Your task to perform on an android device: turn on translation in the chrome app Image 0: 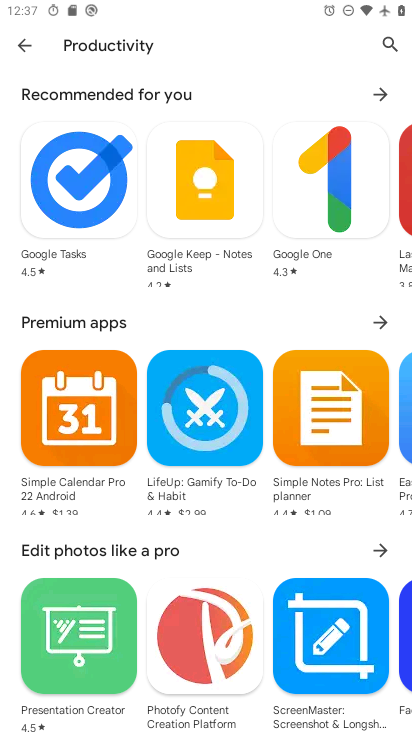
Step 0: press home button
Your task to perform on an android device: turn on translation in the chrome app Image 1: 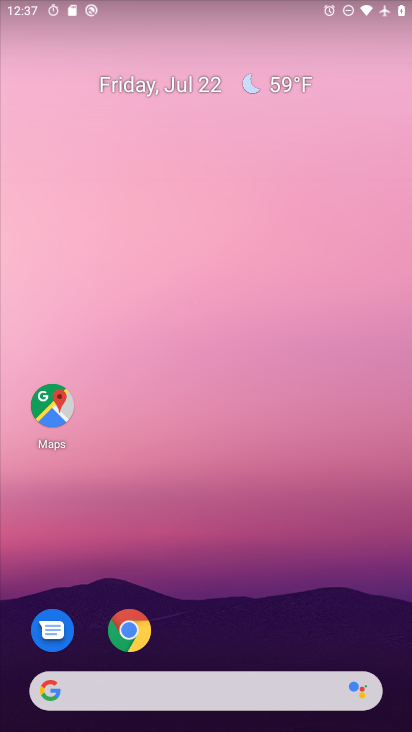
Step 1: drag from (220, 625) to (118, 213)
Your task to perform on an android device: turn on translation in the chrome app Image 2: 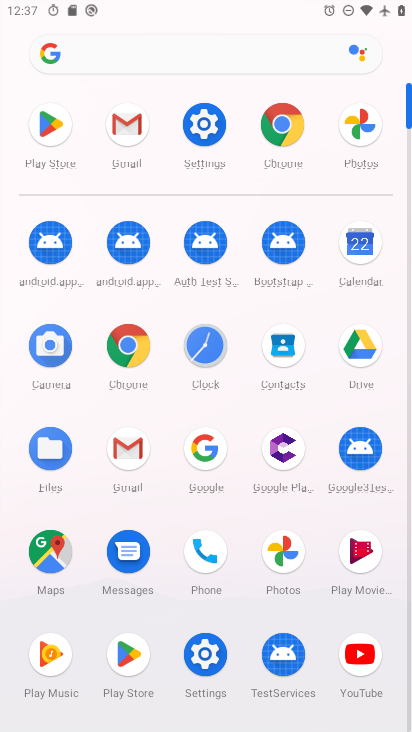
Step 2: click (287, 130)
Your task to perform on an android device: turn on translation in the chrome app Image 3: 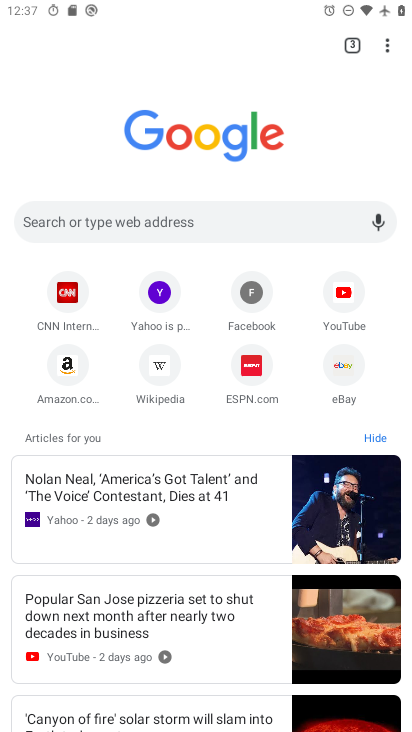
Step 3: drag from (390, 48) to (199, 438)
Your task to perform on an android device: turn on translation in the chrome app Image 4: 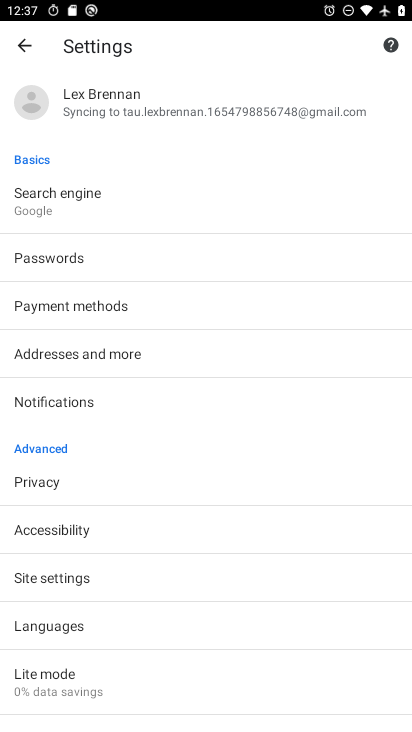
Step 4: click (49, 624)
Your task to perform on an android device: turn on translation in the chrome app Image 5: 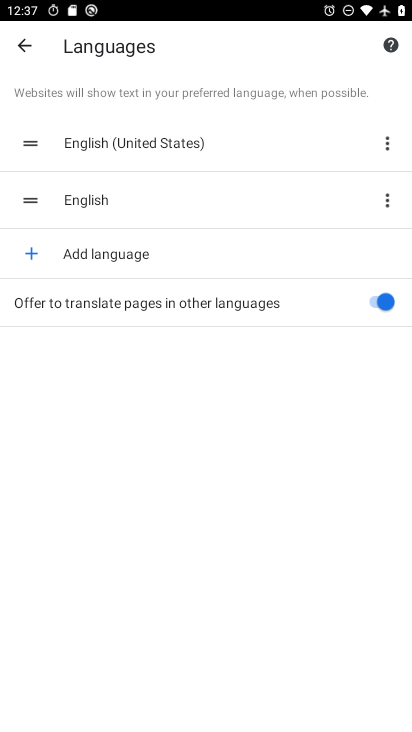
Step 5: task complete